Your task to perform on an android device: toggle data saver in the chrome app Image 0: 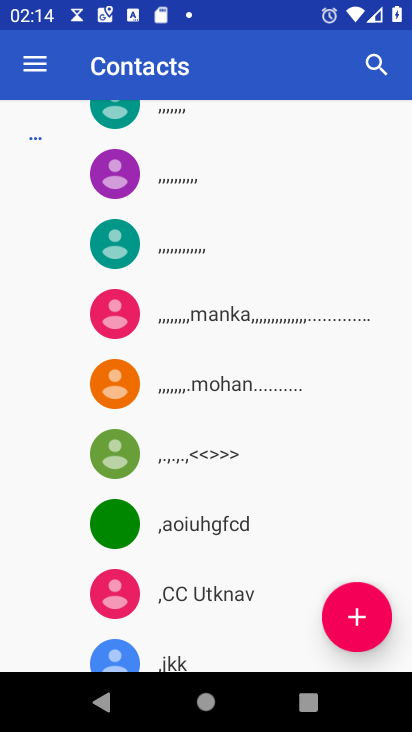
Step 0: press home button
Your task to perform on an android device: toggle data saver in the chrome app Image 1: 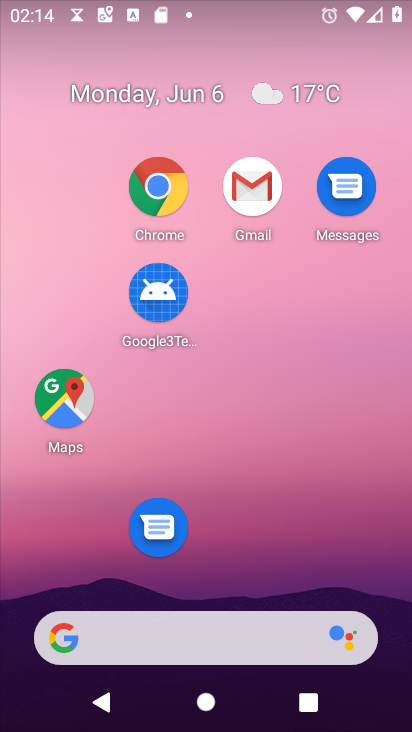
Step 1: drag from (278, 542) to (249, 0)
Your task to perform on an android device: toggle data saver in the chrome app Image 2: 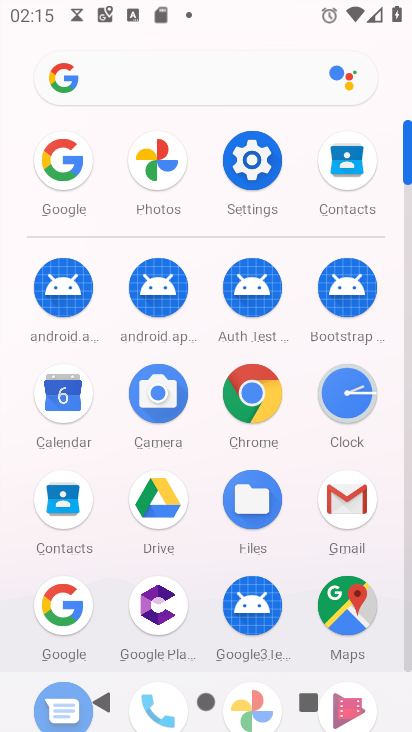
Step 2: click (250, 405)
Your task to perform on an android device: toggle data saver in the chrome app Image 3: 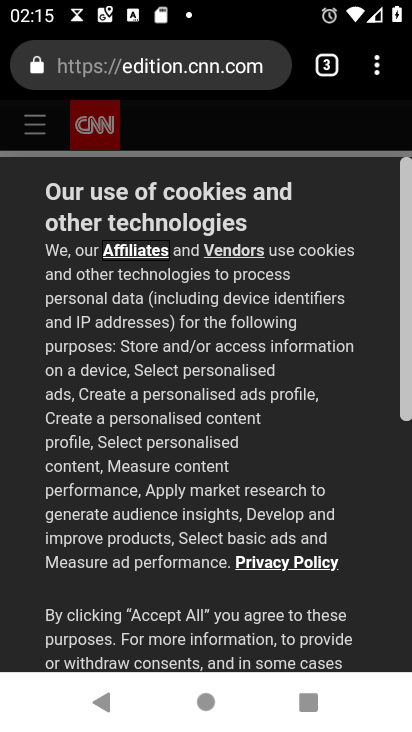
Step 3: click (377, 65)
Your task to perform on an android device: toggle data saver in the chrome app Image 4: 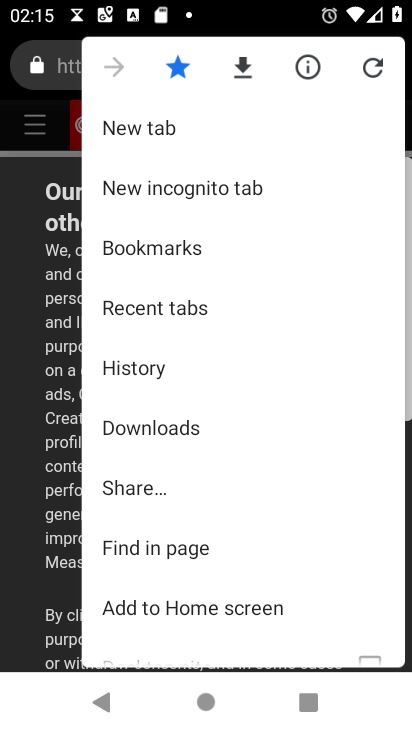
Step 4: drag from (211, 563) to (200, 240)
Your task to perform on an android device: toggle data saver in the chrome app Image 5: 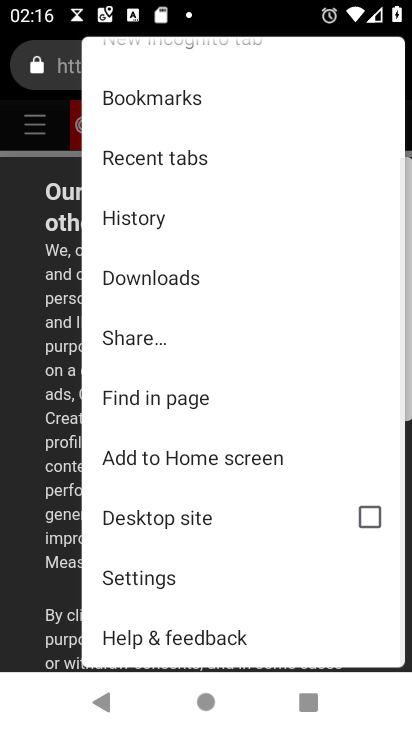
Step 5: click (168, 577)
Your task to perform on an android device: toggle data saver in the chrome app Image 6: 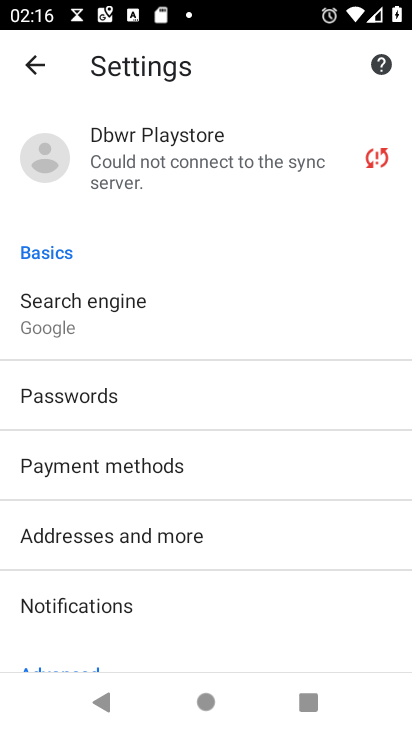
Step 6: drag from (299, 612) to (263, 164)
Your task to perform on an android device: toggle data saver in the chrome app Image 7: 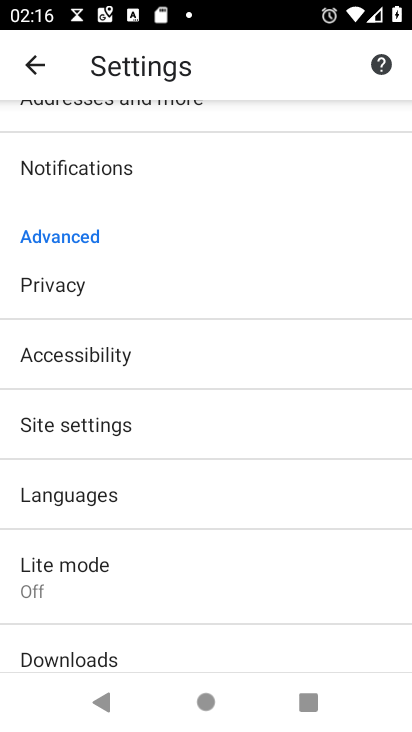
Step 7: click (101, 595)
Your task to perform on an android device: toggle data saver in the chrome app Image 8: 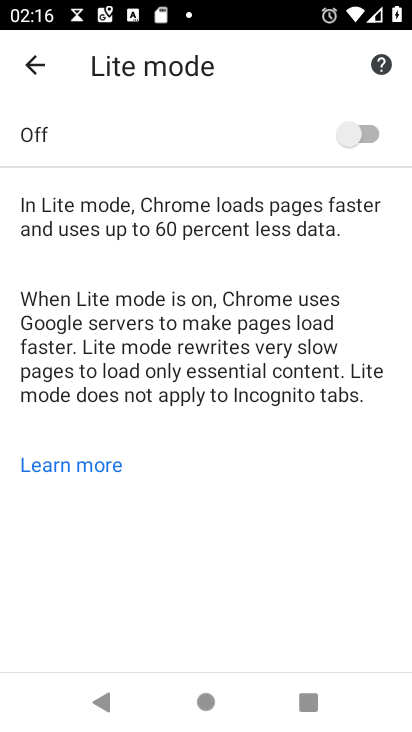
Step 8: click (376, 138)
Your task to perform on an android device: toggle data saver in the chrome app Image 9: 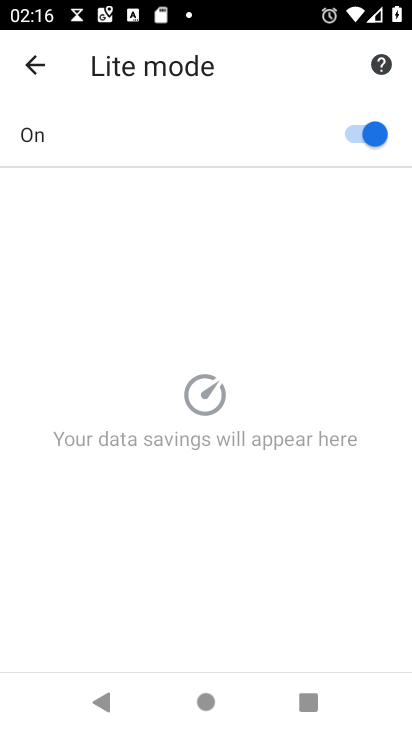
Step 9: task complete